Your task to perform on an android device: move a message to another label in the gmail app Image 0: 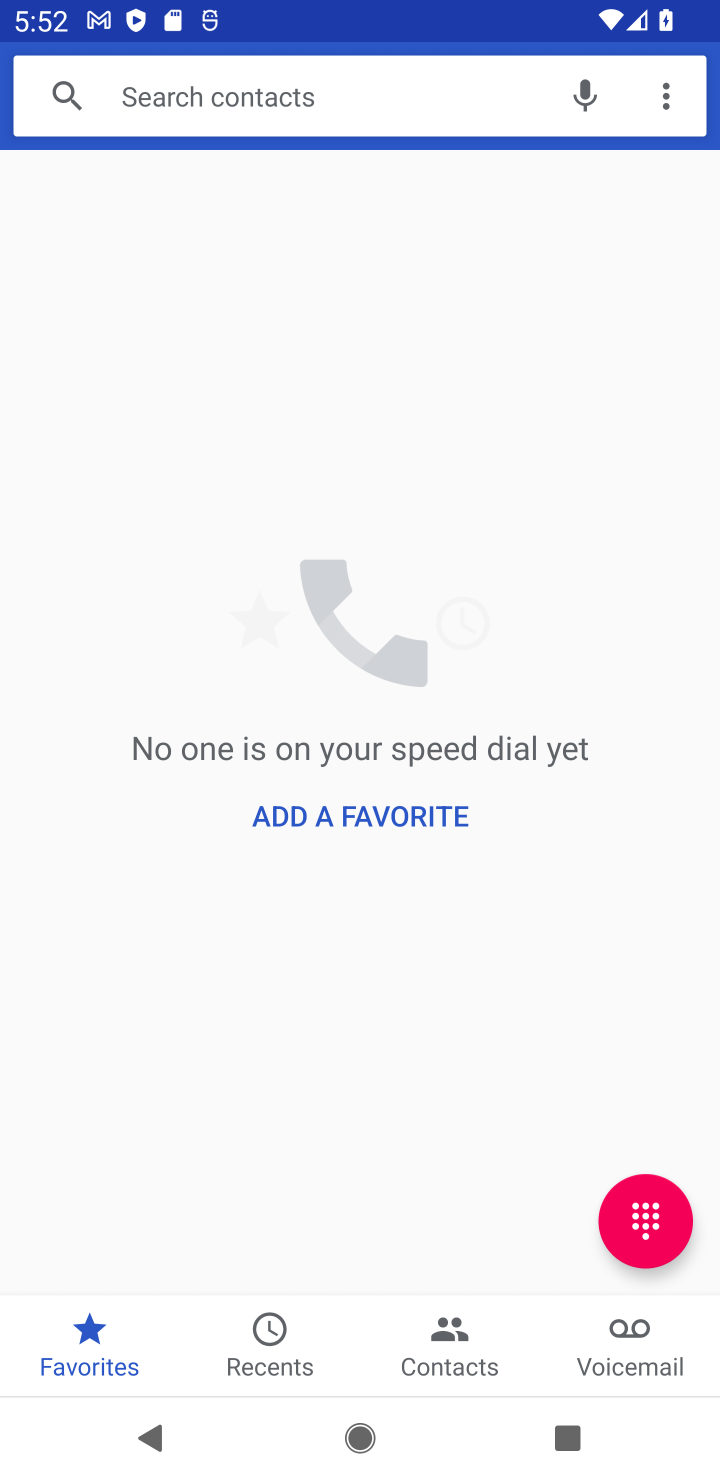
Step 0: task complete